Your task to perform on an android device: set default search engine in the chrome app Image 0: 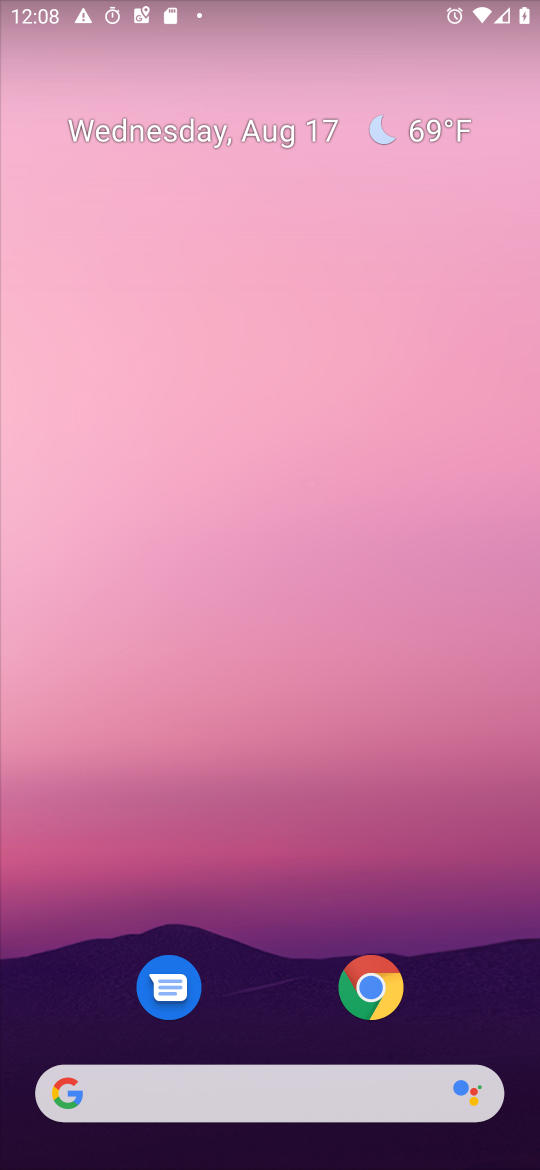
Step 0: click (366, 1001)
Your task to perform on an android device: set default search engine in the chrome app Image 1: 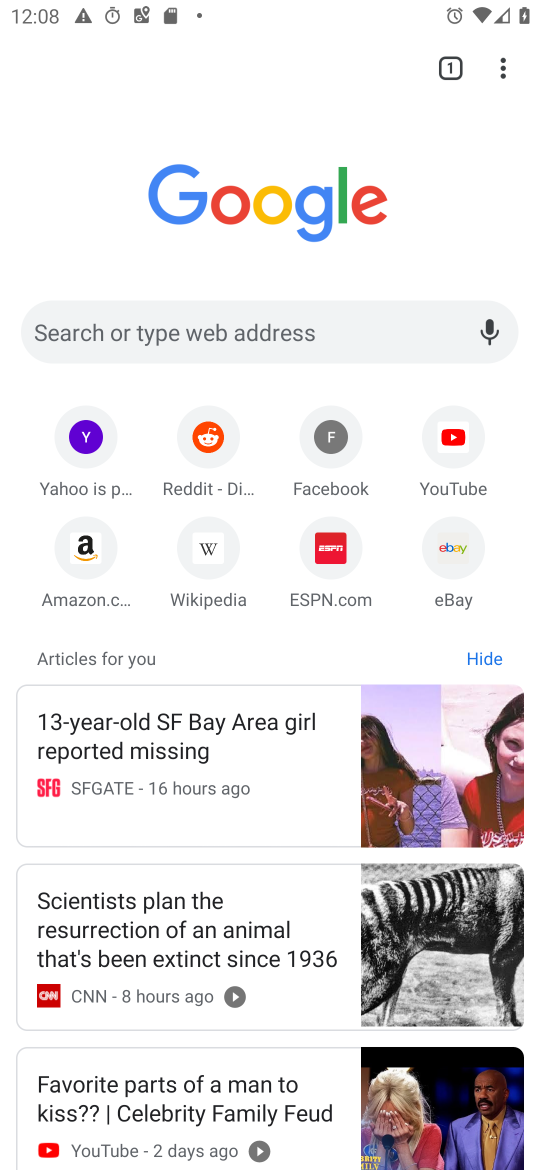
Step 1: click (510, 81)
Your task to perform on an android device: set default search engine in the chrome app Image 2: 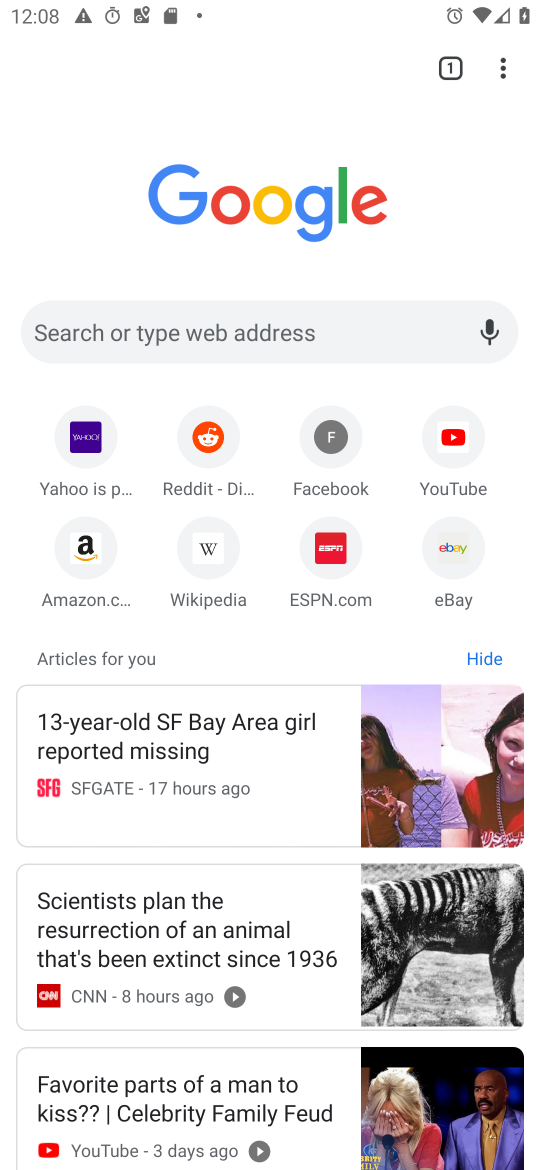
Step 2: click (511, 73)
Your task to perform on an android device: set default search engine in the chrome app Image 3: 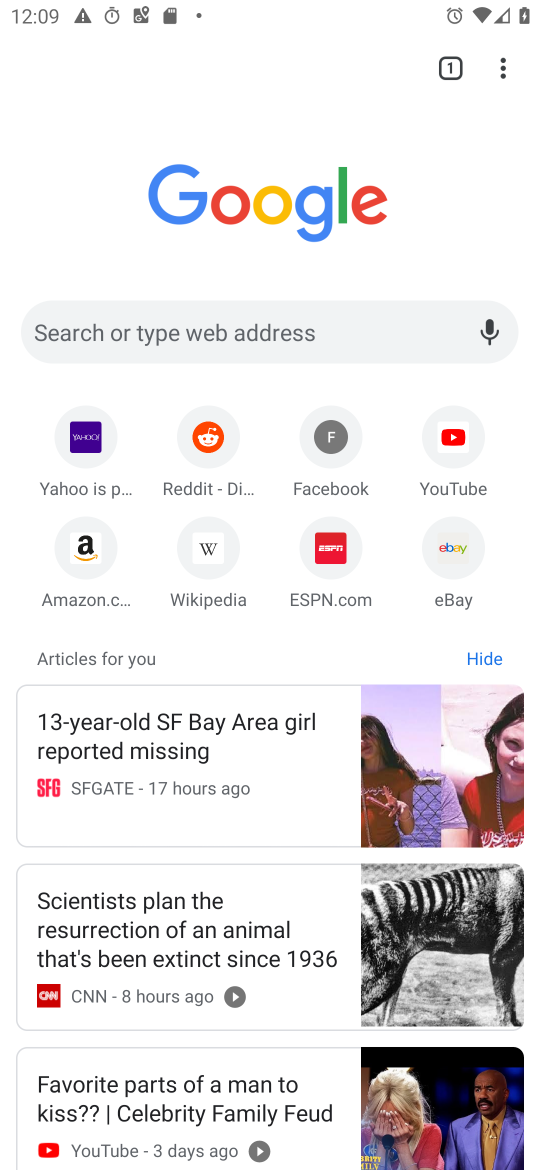
Step 3: click (501, 65)
Your task to perform on an android device: set default search engine in the chrome app Image 4: 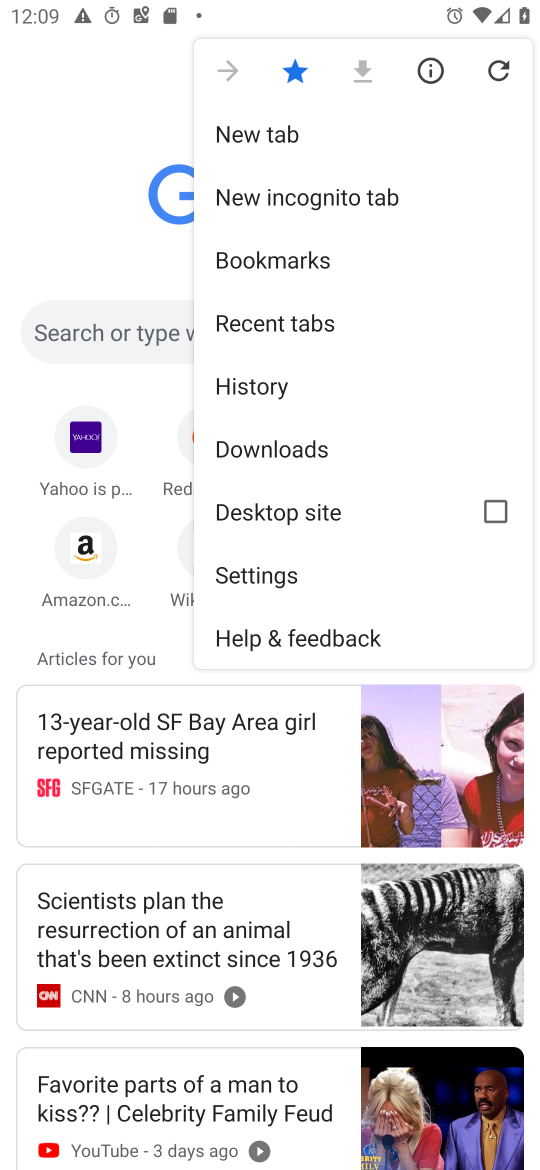
Step 4: click (263, 576)
Your task to perform on an android device: set default search engine in the chrome app Image 5: 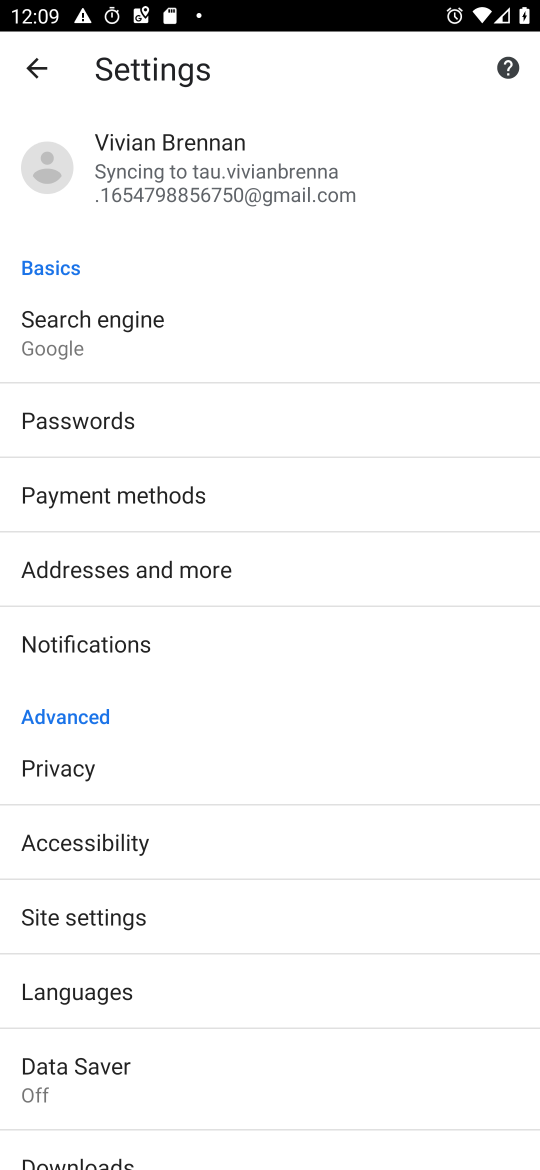
Step 5: click (65, 923)
Your task to perform on an android device: set default search engine in the chrome app Image 6: 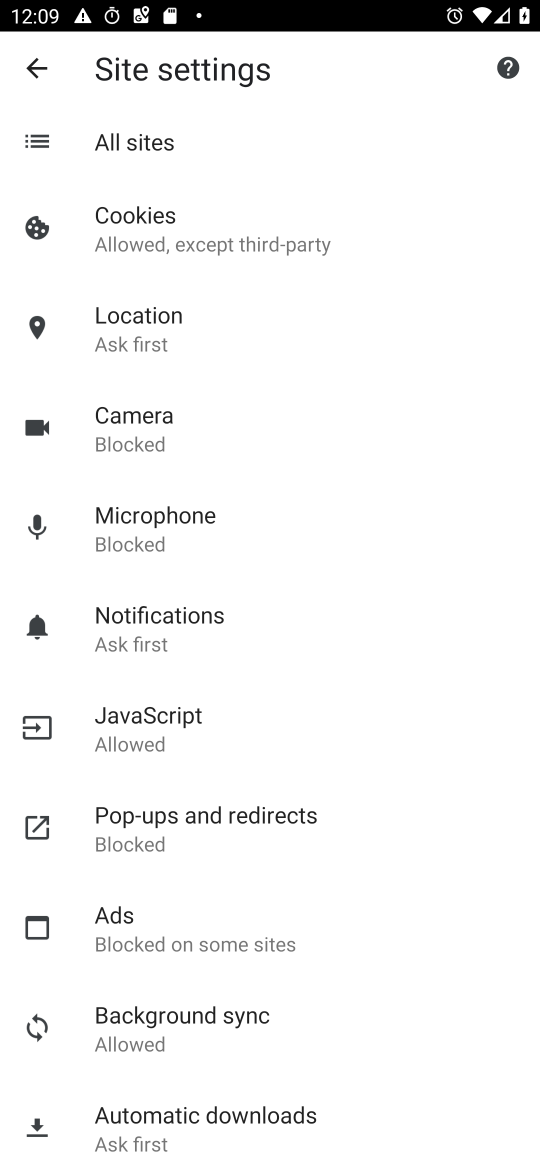
Step 6: task complete